Your task to perform on an android device: turn on airplane mode Image 0: 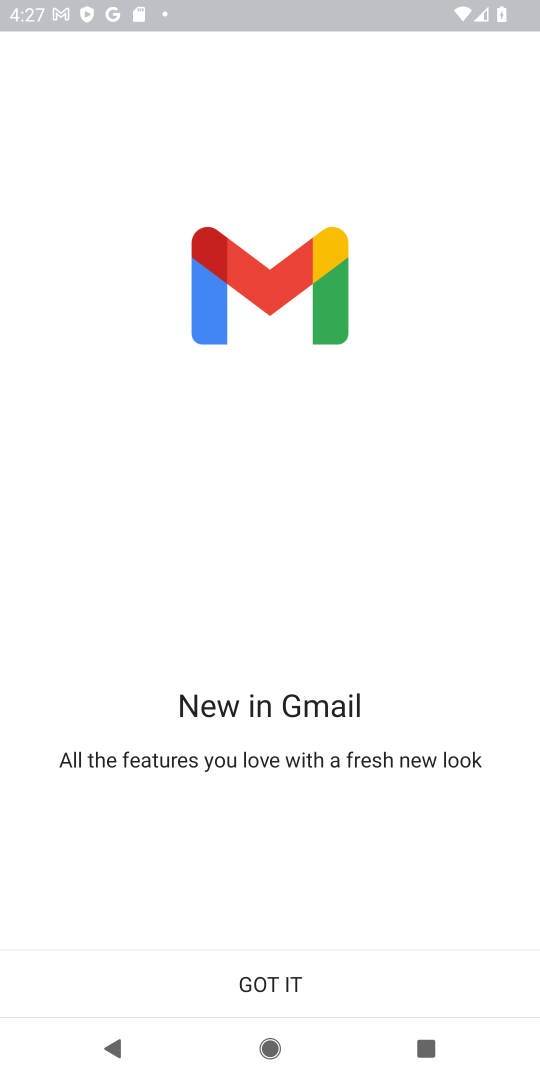
Step 0: press home button
Your task to perform on an android device: turn on airplane mode Image 1: 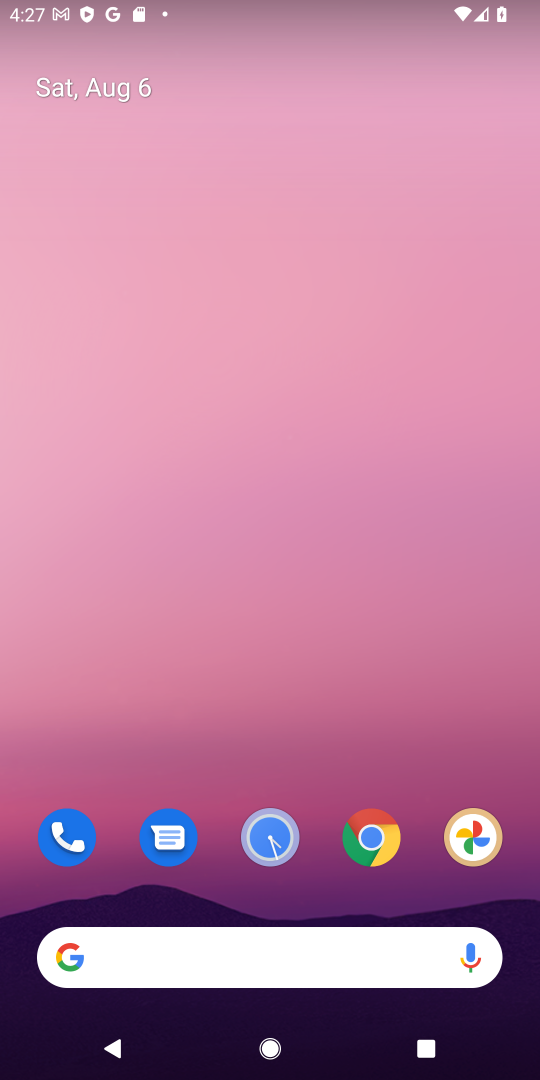
Step 1: drag from (412, 897) to (394, 150)
Your task to perform on an android device: turn on airplane mode Image 2: 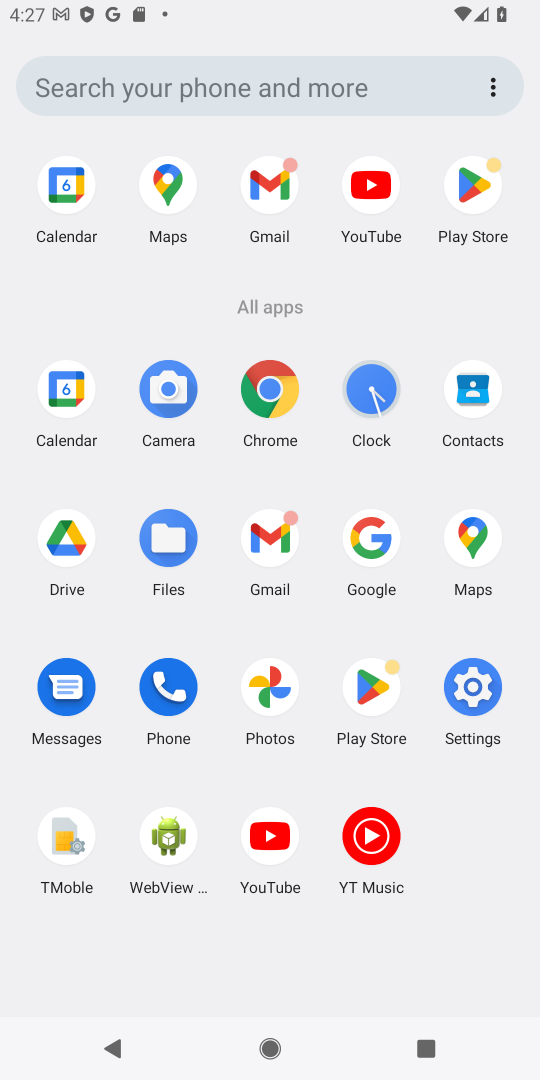
Step 2: click (471, 684)
Your task to perform on an android device: turn on airplane mode Image 3: 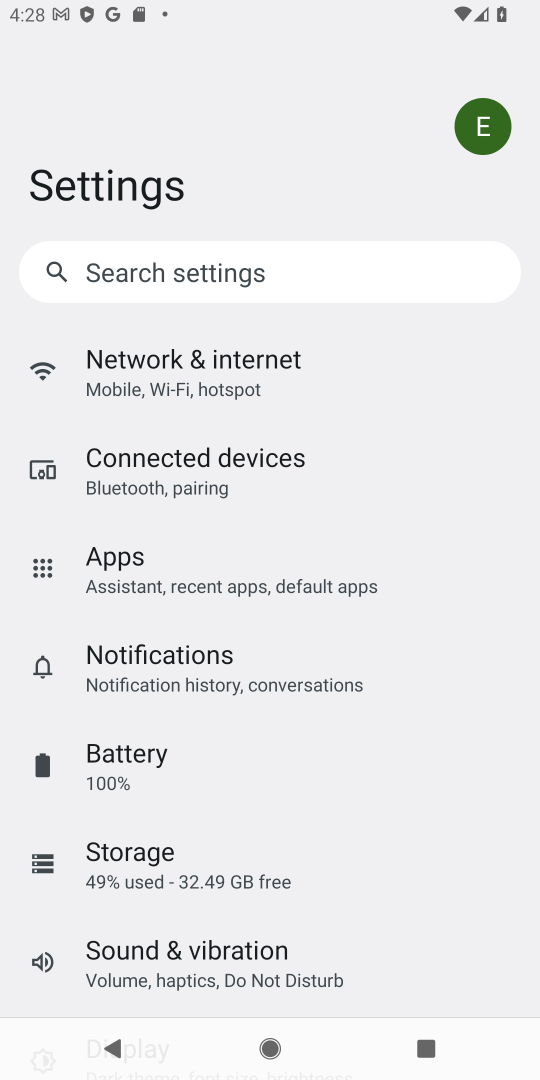
Step 3: click (159, 360)
Your task to perform on an android device: turn on airplane mode Image 4: 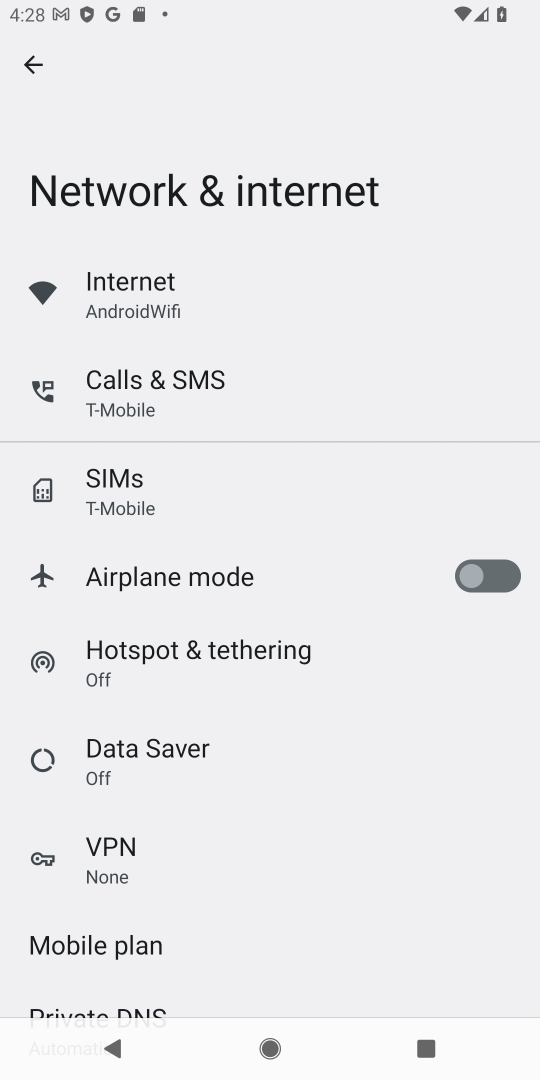
Step 4: click (507, 573)
Your task to perform on an android device: turn on airplane mode Image 5: 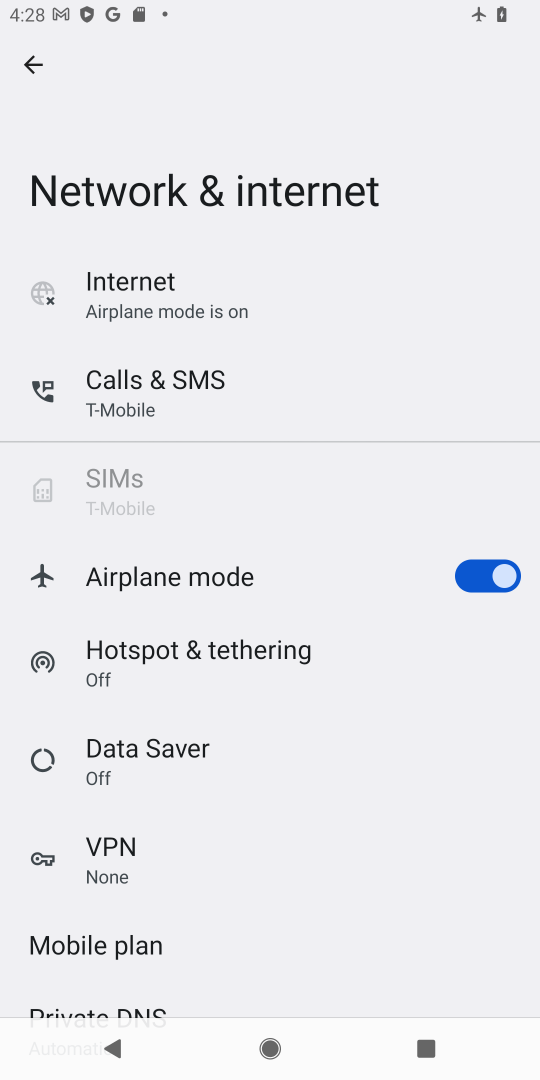
Step 5: task complete